Your task to perform on an android device: Open Amazon Image 0: 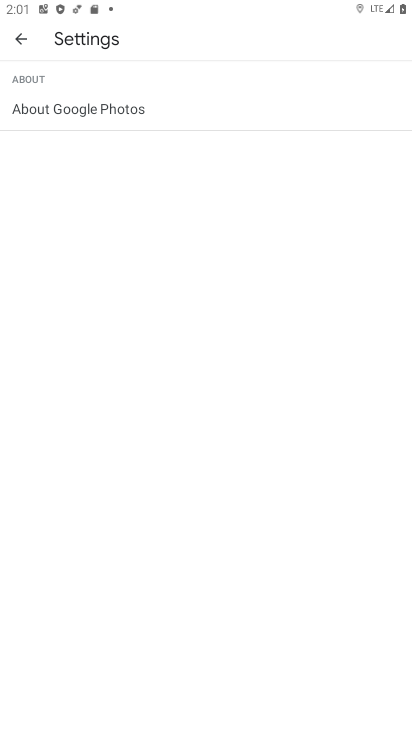
Step 0: press home button
Your task to perform on an android device: Open Amazon Image 1: 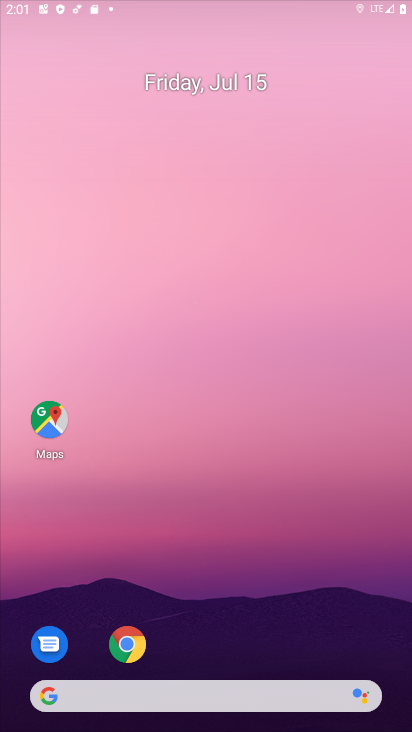
Step 1: drag from (398, 621) to (339, 14)
Your task to perform on an android device: Open Amazon Image 2: 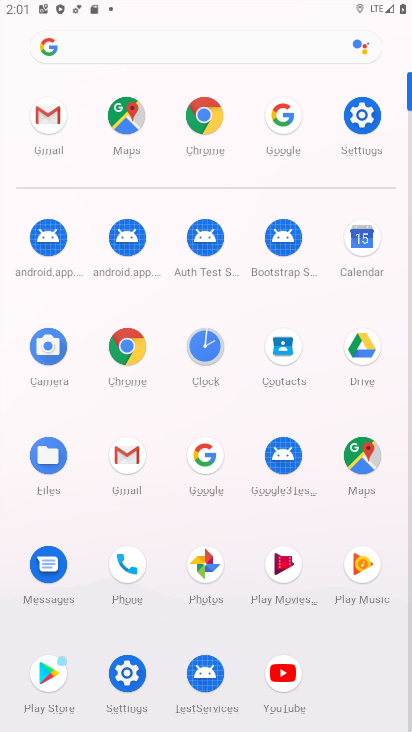
Step 2: click (200, 459)
Your task to perform on an android device: Open Amazon Image 3: 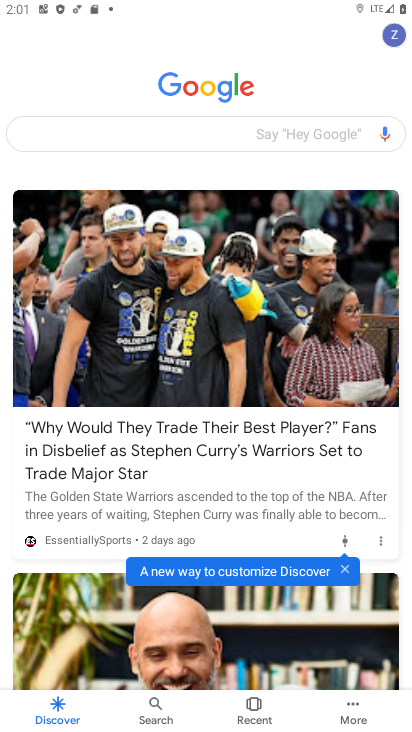
Step 3: click (134, 127)
Your task to perform on an android device: Open Amazon Image 4: 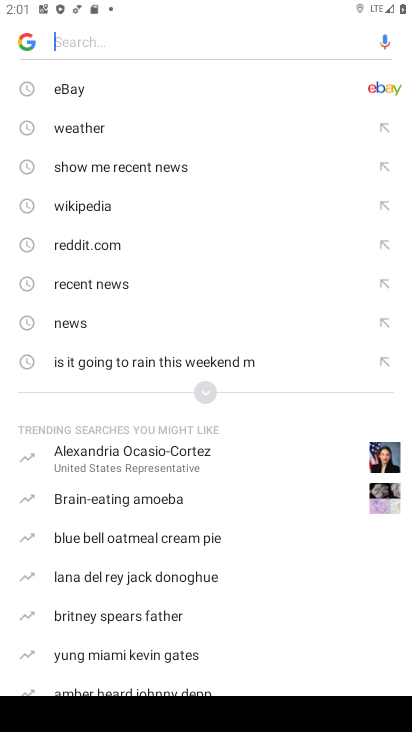
Step 4: type "Amazon"
Your task to perform on an android device: Open Amazon Image 5: 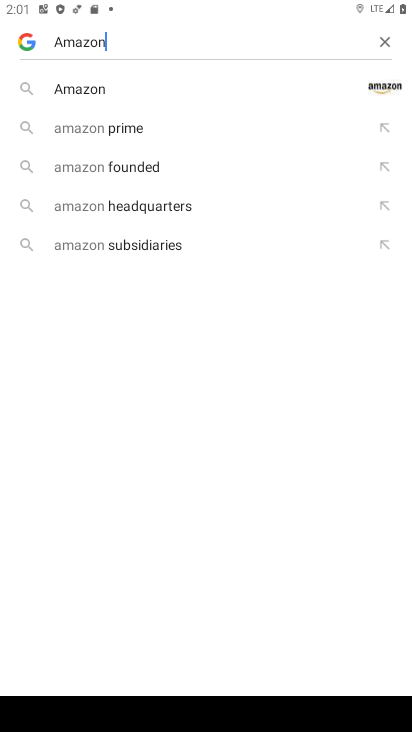
Step 5: click (87, 89)
Your task to perform on an android device: Open Amazon Image 6: 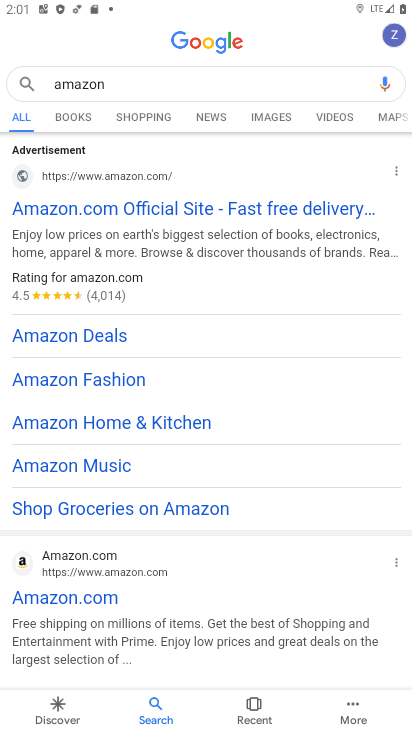
Step 6: task complete